Your task to perform on an android device: change the upload size in google photos Image 0: 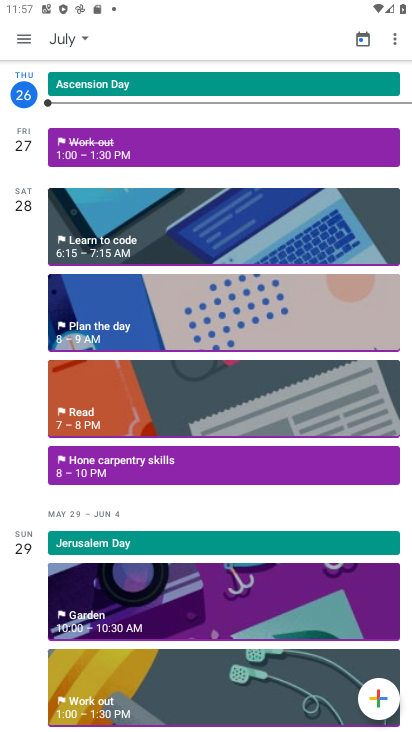
Step 0: press home button
Your task to perform on an android device: change the upload size in google photos Image 1: 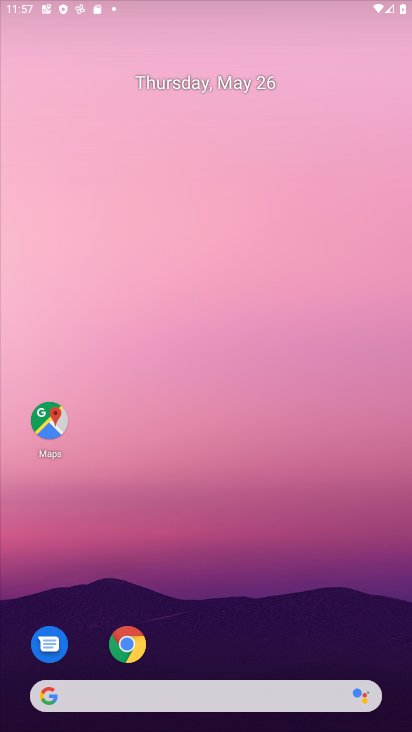
Step 1: drag from (344, 647) to (293, 17)
Your task to perform on an android device: change the upload size in google photos Image 2: 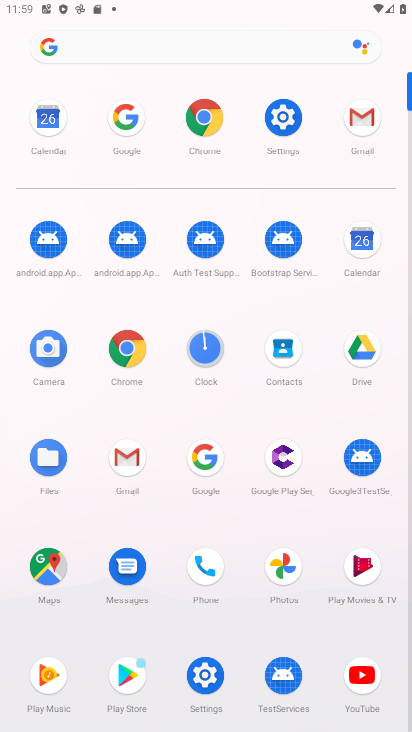
Step 2: click (290, 559)
Your task to perform on an android device: change the upload size in google photos Image 3: 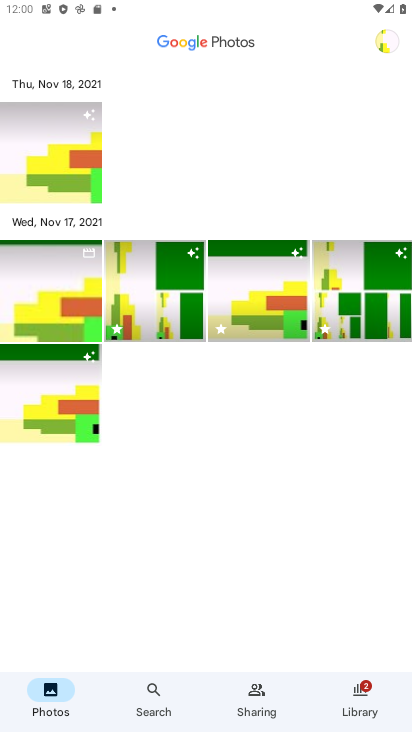
Step 3: click (387, 47)
Your task to perform on an android device: change the upload size in google photos Image 4: 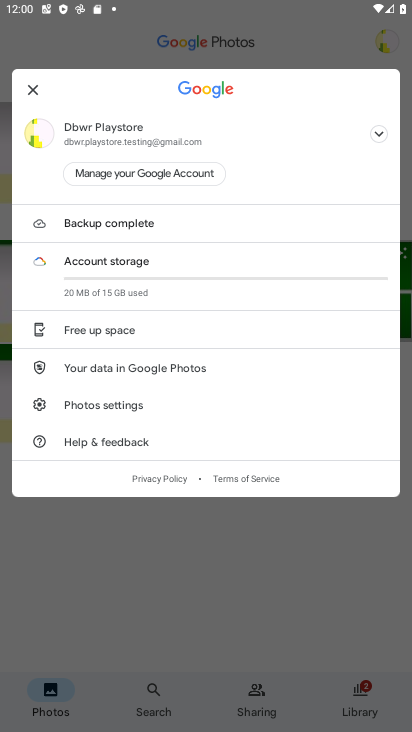
Step 4: click (127, 400)
Your task to perform on an android device: change the upload size in google photos Image 5: 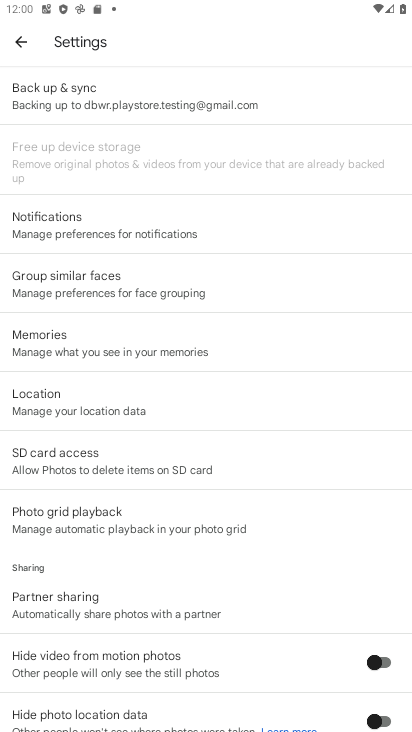
Step 5: click (128, 108)
Your task to perform on an android device: change the upload size in google photos Image 6: 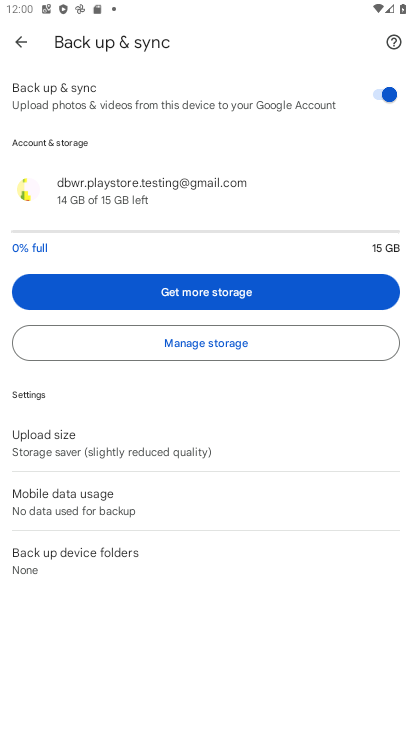
Step 6: click (114, 440)
Your task to perform on an android device: change the upload size in google photos Image 7: 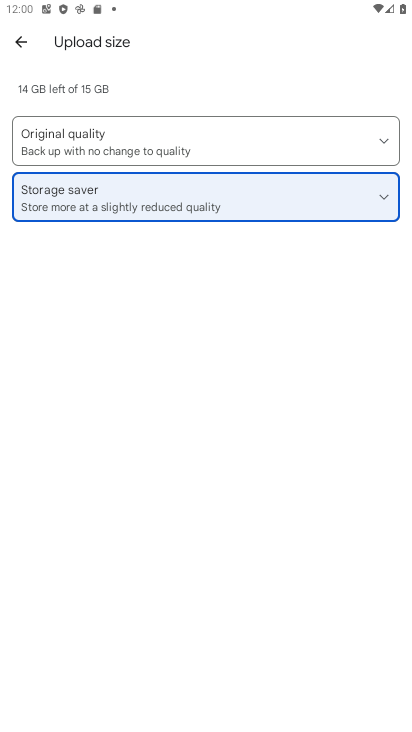
Step 7: click (107, 120)
Your task to perform on an android device: change the upload size in google photos Image 8: 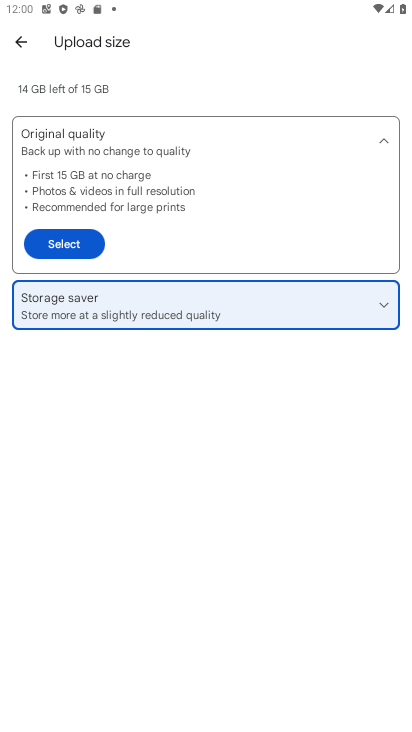
Step 8: click (81, 235)
Your task to perform on an android device: change the upload size in google photos Image 9: 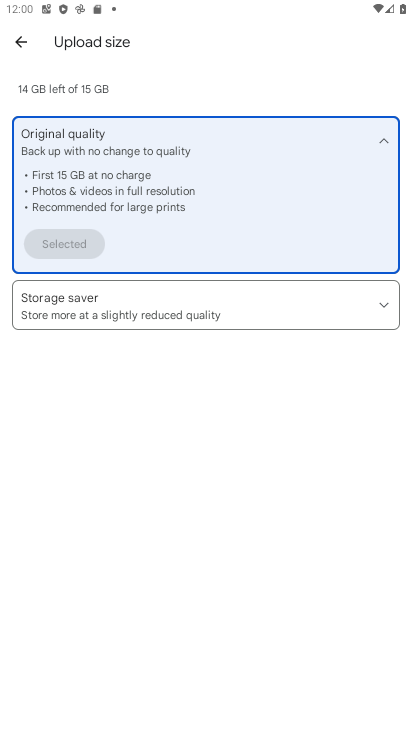
Step 9: task complete